Your task to perform on an android device: turn off improve location accuracy Image 0: 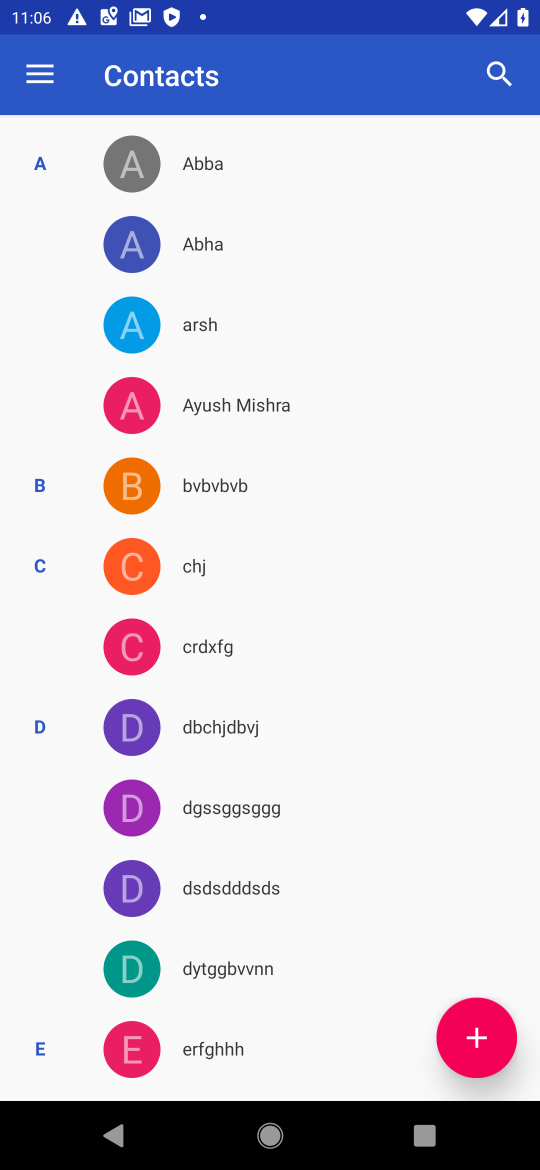
Step 0: press home button
Your task to perform on an android device: turn off improve location accuracy Image 1: 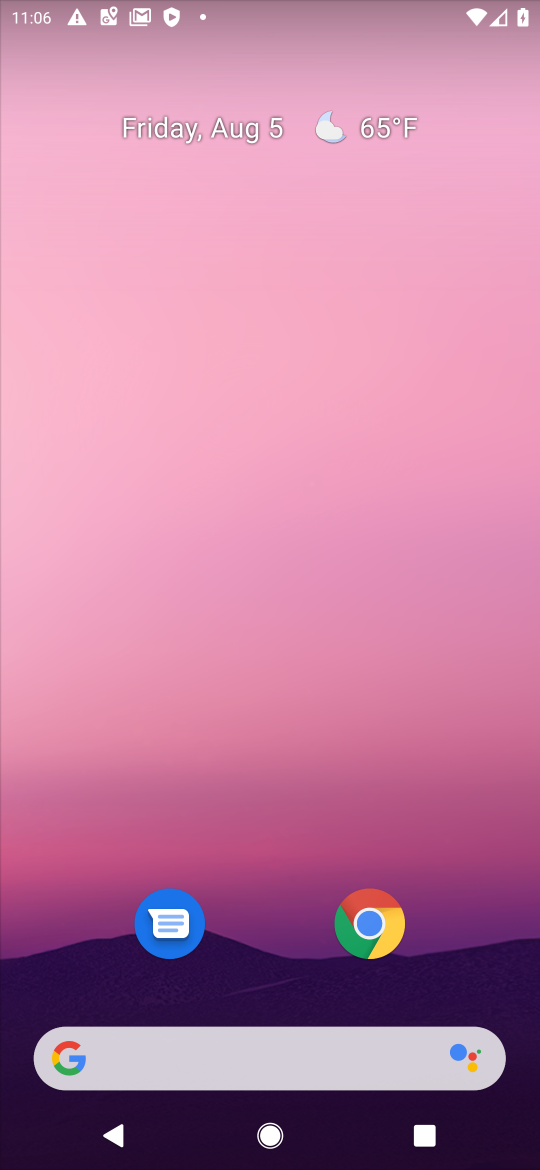
Step 1: drag from (284, 1046) to (208, 29)
Your task to perform on an android device: turn off improve location accuracy Image 2: 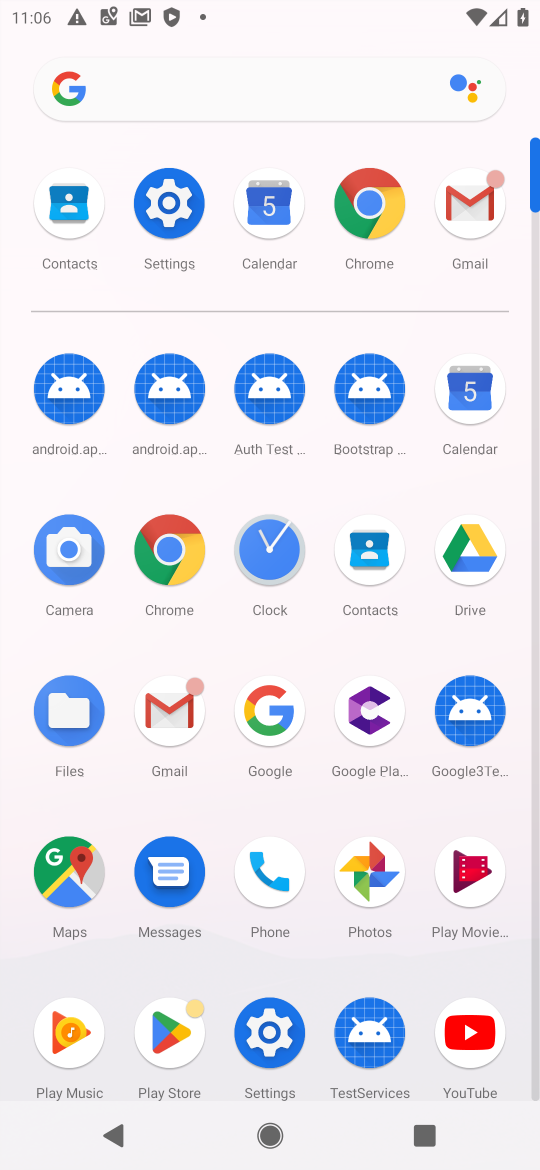
Step 2: click (265, 1015)
Your task to perform on an android device: turn off improve location accuracy Image 3: 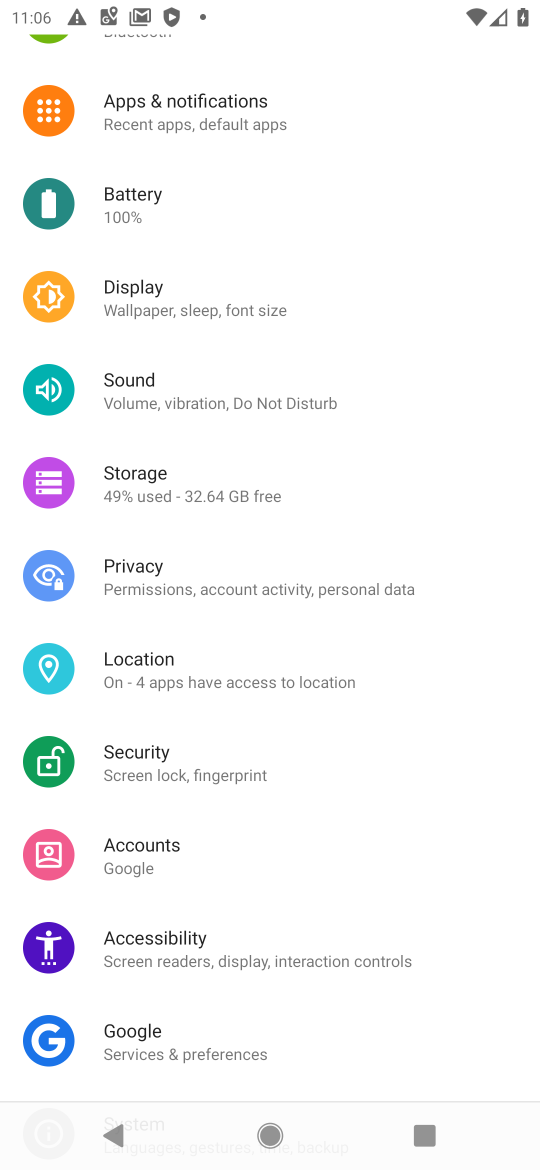
Step 3: click (141, 664)
Your task to perform on an android device: turn off improve location accuracy Image 4: 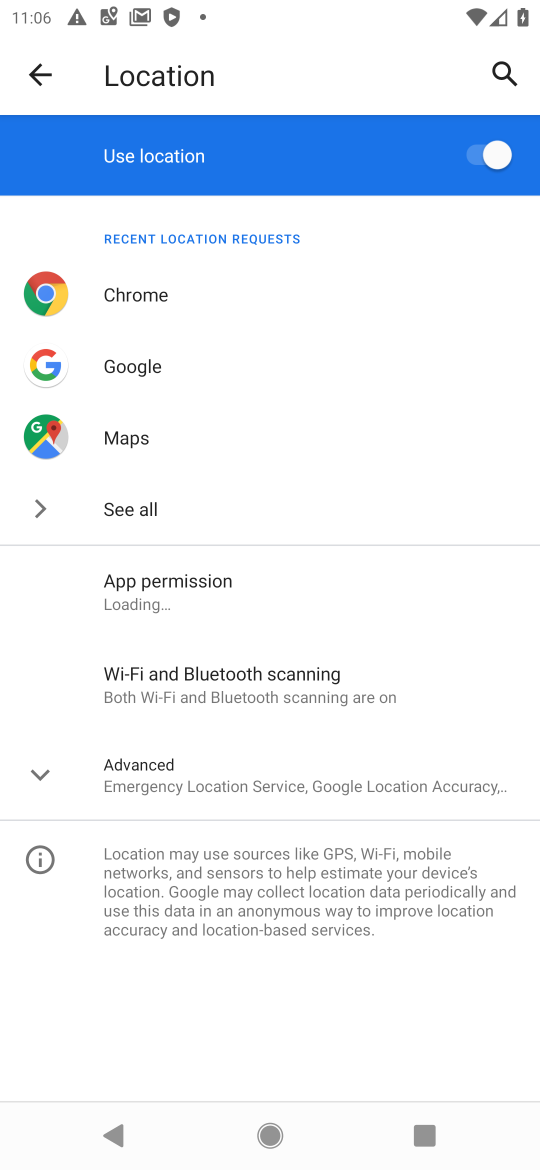
Step 4: click (490, 164)
Your task to perform on an android device: turn off improve location accuracy Image 5: 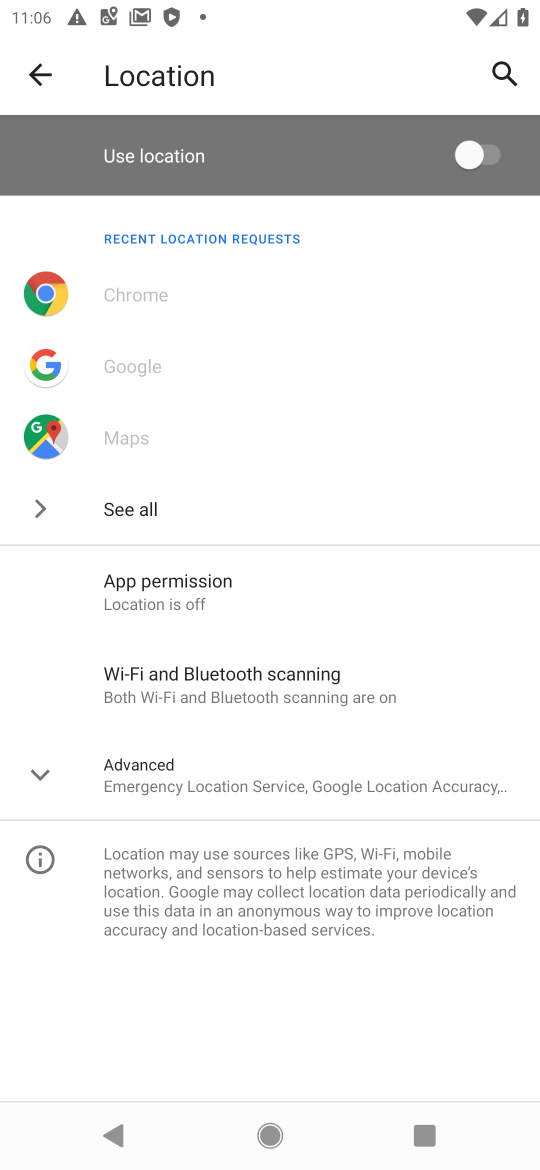
Step 5: click (494, 146)
Your task to perform on an android device: turn off improve location accuracy Image 6: 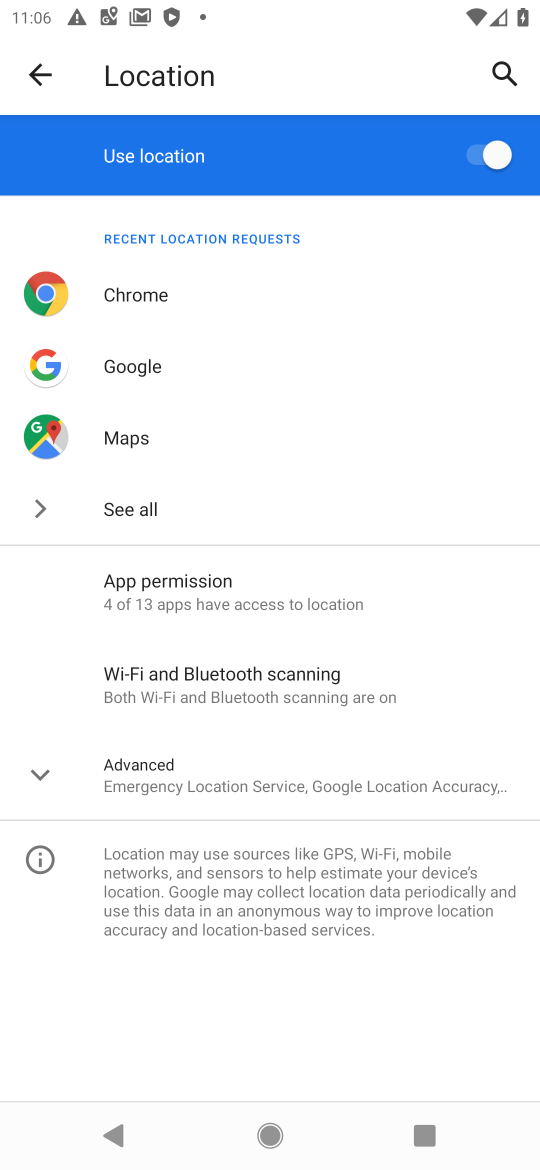
Step 6: click (199, 776)
Your task to perform on an android device: turn off improve location accuracy Image 7: 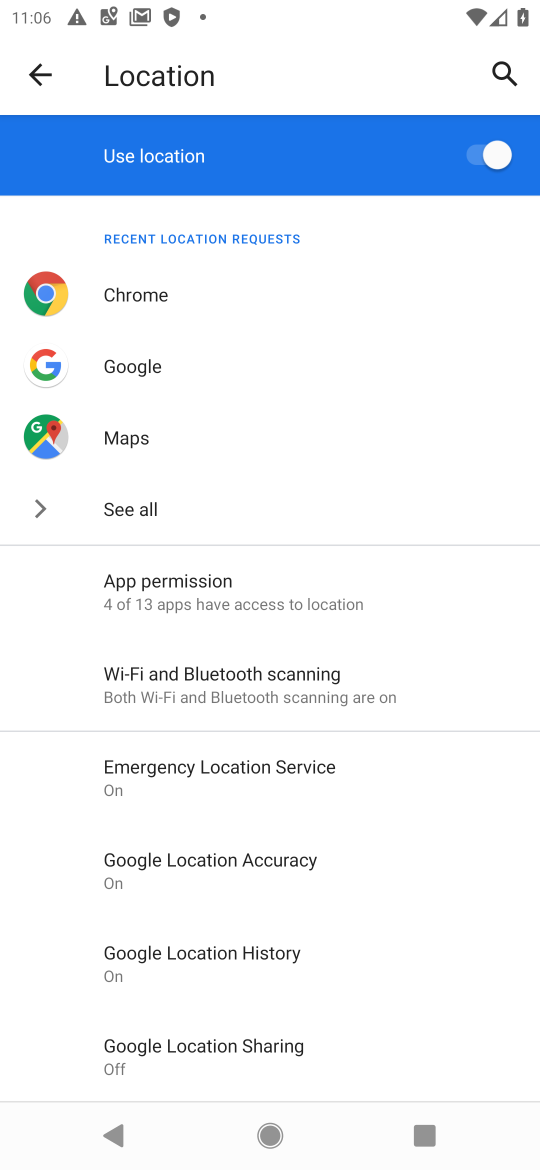
Step 7: click (231, 860)
Your task to perform on an android device: turn off improve location accuracy Image 8: 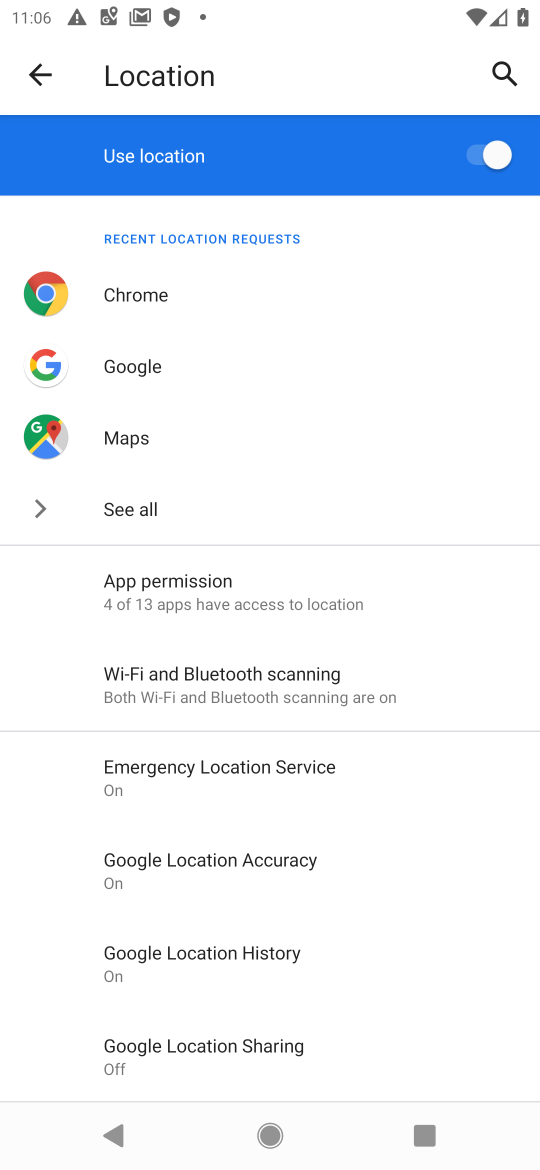
Step 8: click (231, 860)
Your task to perform on an android device: turn off improve location accuracy Image 9: 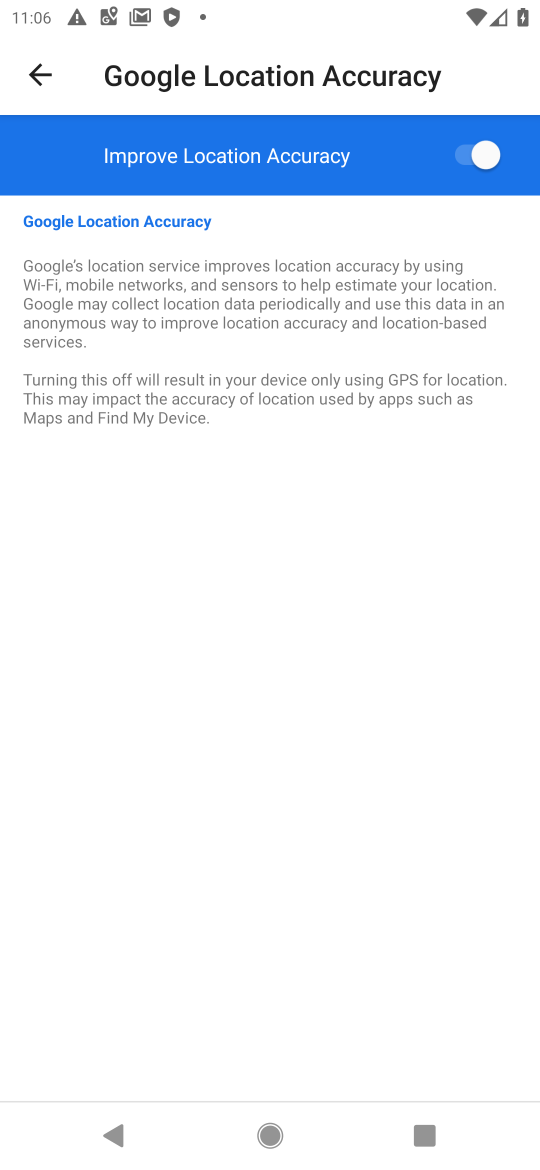
Step 9: click (474, 158)
Your task to perform on an android device: turn off improve location accuracy Image 10: 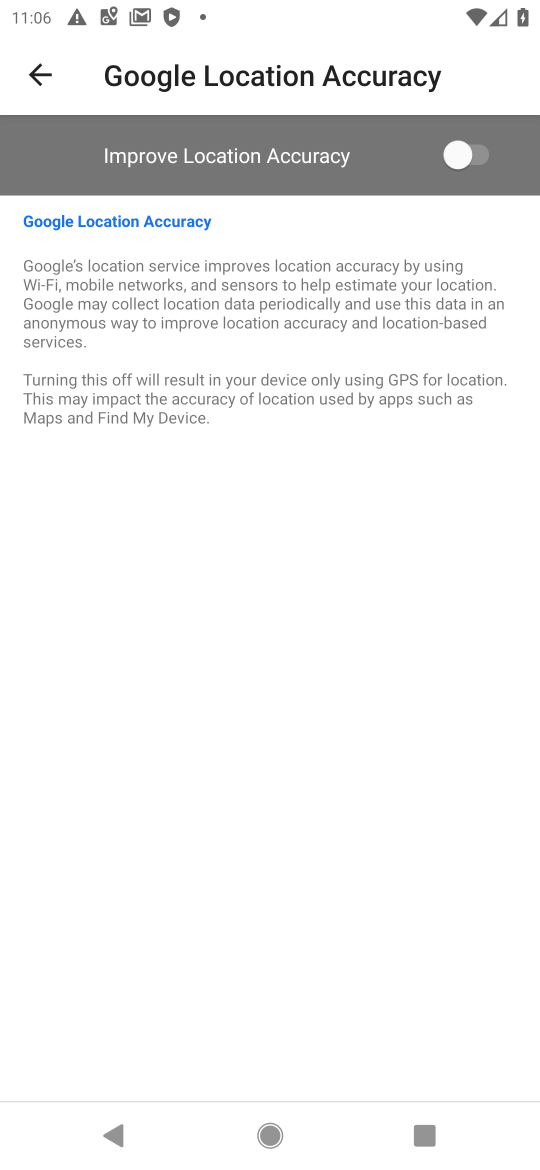
Step 10: task complete